Your task to perform on an android device: Open settings on Google Maps Image 0: 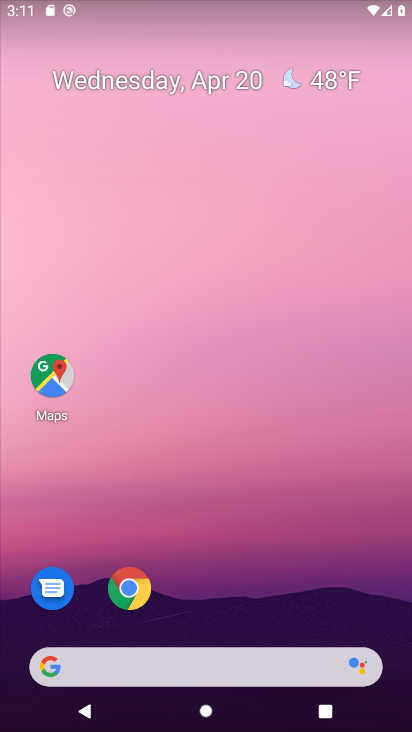
Step 0: drag from (325, 436) to (322, 91)
Your task to perform on an android device: Open settings on Google Maps Image 1: 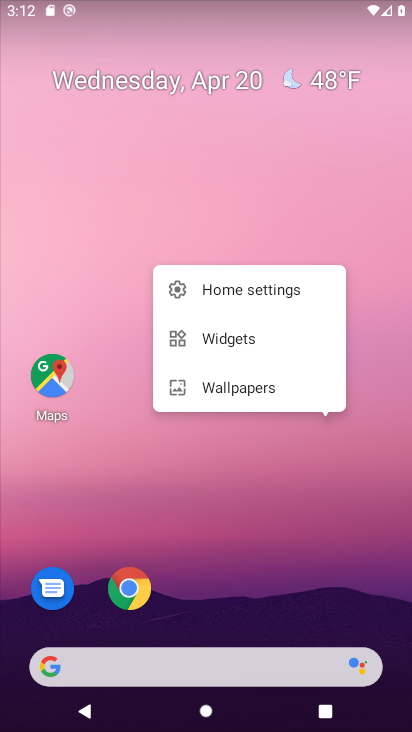
Step 1: click (322, 476)
Your task to perform on an android device: Open settings on Google Maps Image 2: 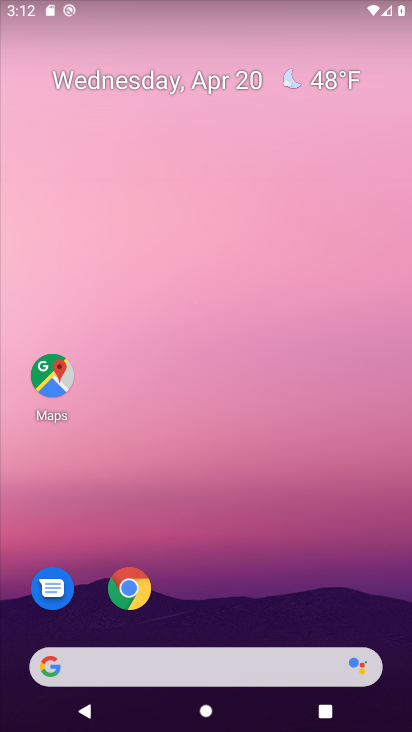
Step 2: drag from (307, 565) to (338, 52)
Your task to perform on an android device: Open settings on Google Maps Image 3: 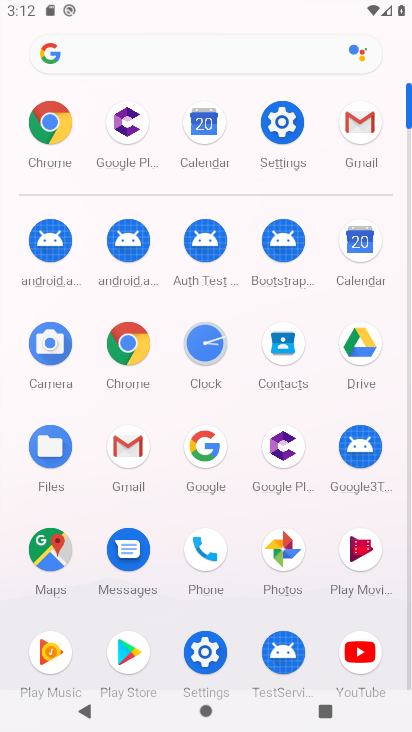
Step 3: click (45, 553)
Your task to perform on an android device: Open settings on Google Maps Image 4: 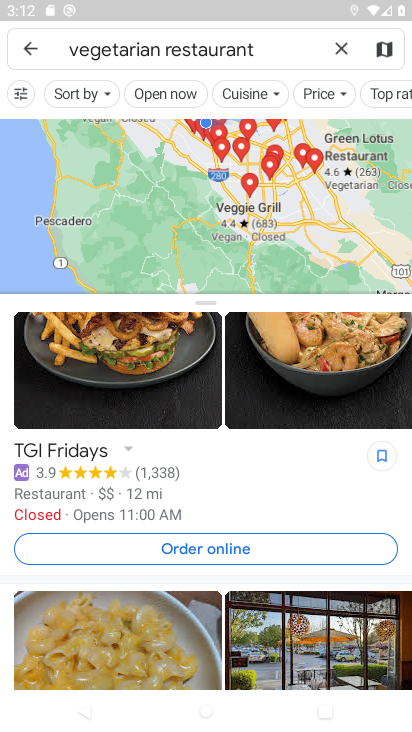
Step 4: click (28, 45)
Your task to perform on an android device: Open settings on Google Maps Image 5: 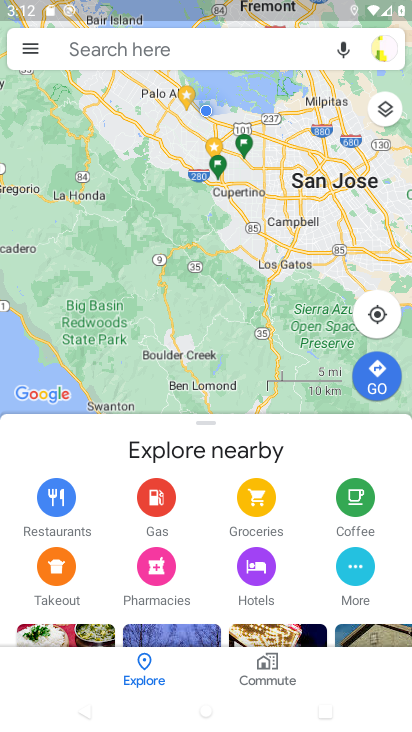
Step 5: click (31, 49)
Your task to perform on an android device: Open settings on Google Maps Image 6: 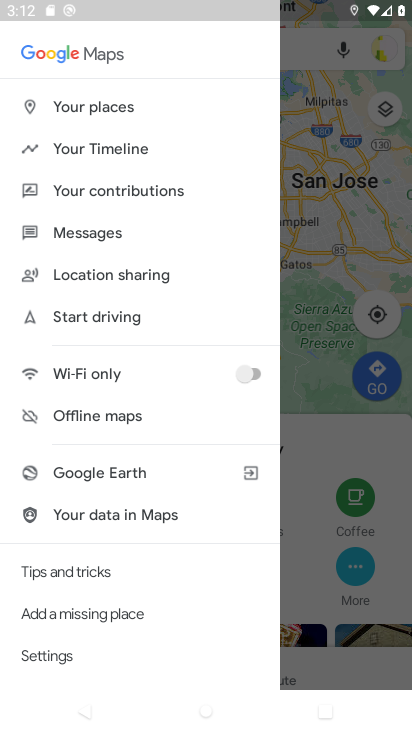
Step 6: click (56, 660)
Your task to perform on an android device: Open settings on Google Maps Image 7: 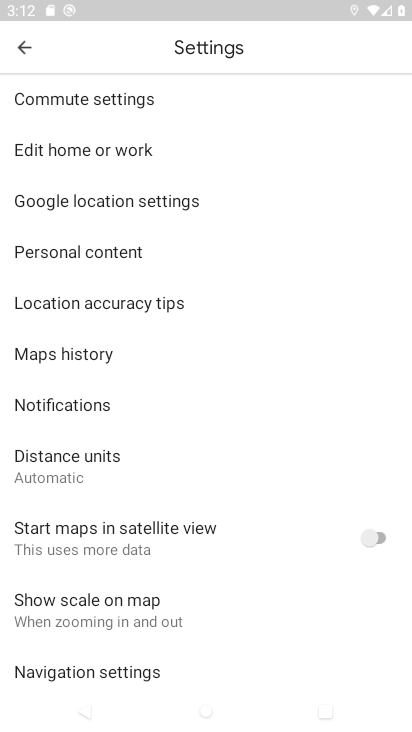
Step 7: task complete